Your task to perform on an android device: Do I have any events today? Image 0: 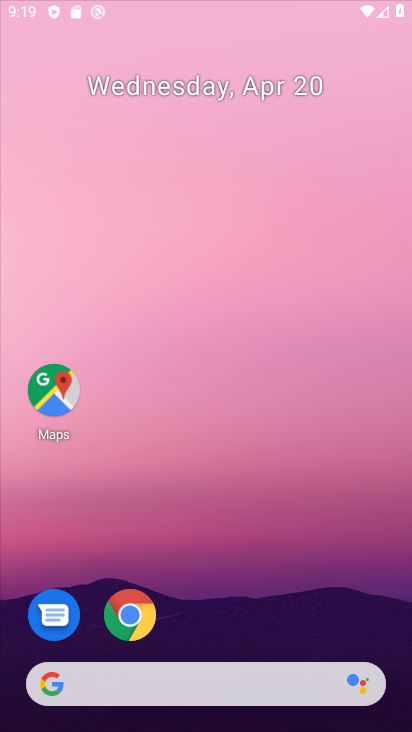
Step 0: click (123, 619)
Your task to perform on an android device: Do I have any events today? Image 1: 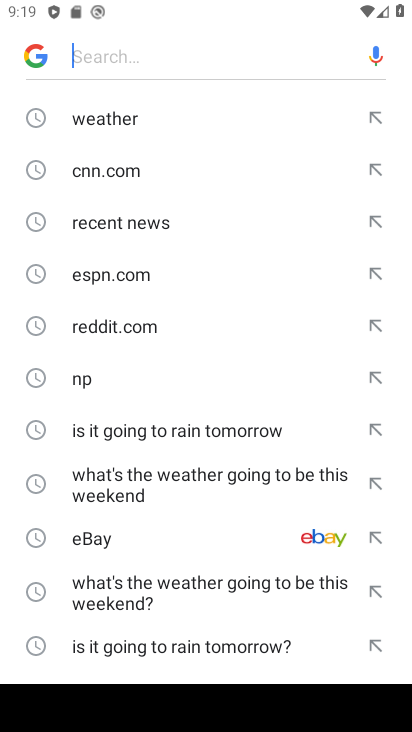
Step 1: press home button
Your task to perform on an android device: Do I have any events today? Image 2: 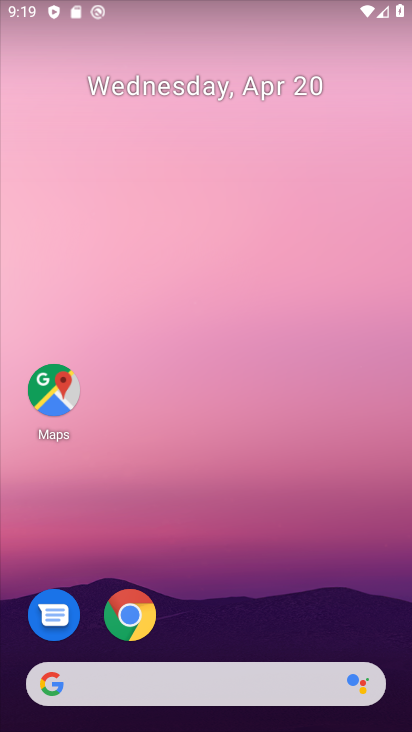
Step 2: drag from (235, 587) to (243, 49)
Your task to perform on an android device: Do I have any events today? Image 3: 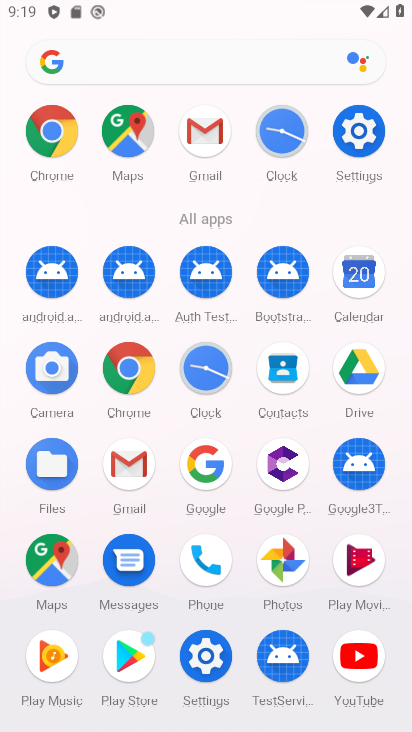
Step 3: click (355, 270)
Your task to perform on an android device: Do I have any events today? Image 4: 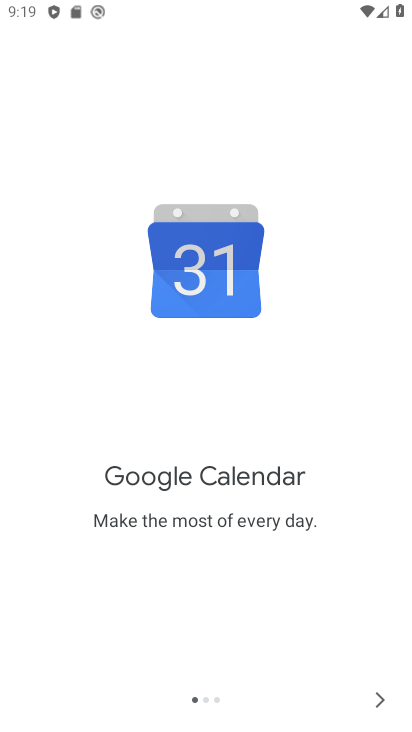
Step 4: click (374, 701)
Your task to perform on an android device: Do I have any events today? Image 5: 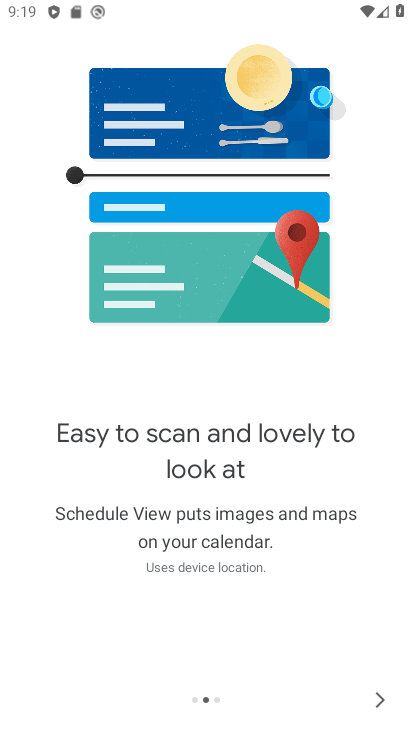
Step 5: click (374, 701)
Your task to perform on an android device: Do I have any events today? Image 6: 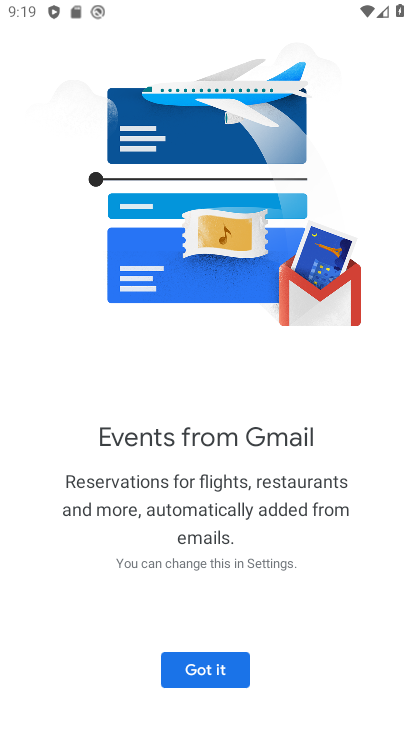
Step 6: click (208, 672)
Your task to perform on an android device: Do I have any events today? Image 7: 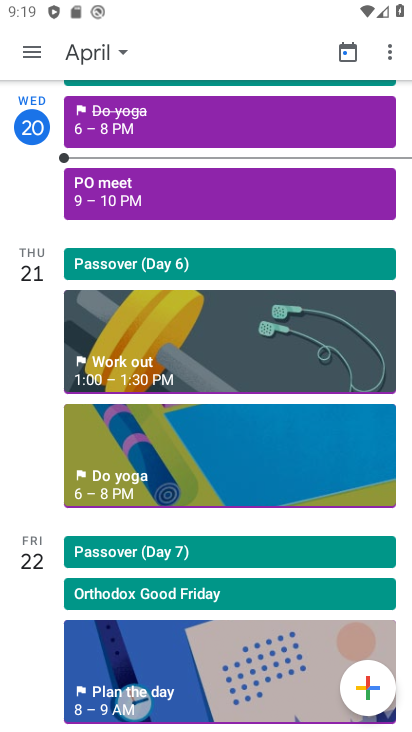
Step 7: click (29, 49)
Your task to perform on an android device: Do I have any events today? Image 8: 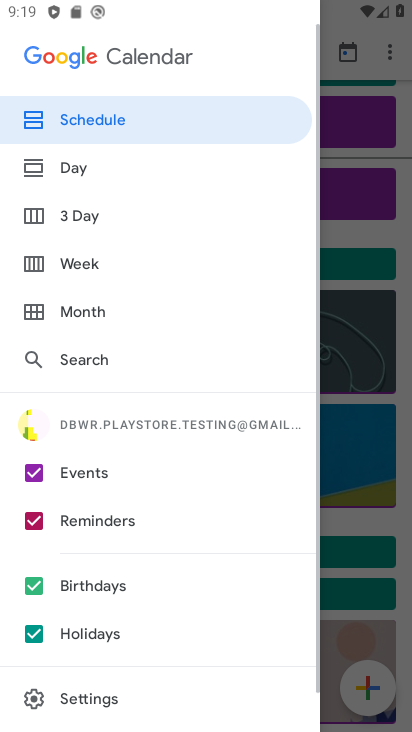
Step 8: click (70, 157)
Your task to perform on an android device: Do I have any events today? Image 9: 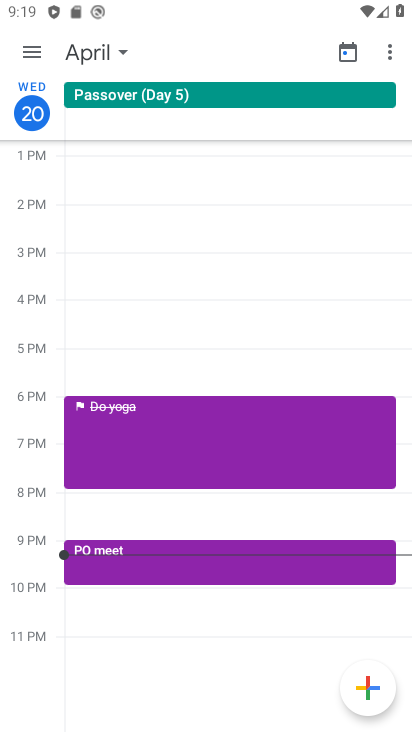
Step 9: click (123, 50)
Your task to perform on an android device: Do I have any events today? Image 10: 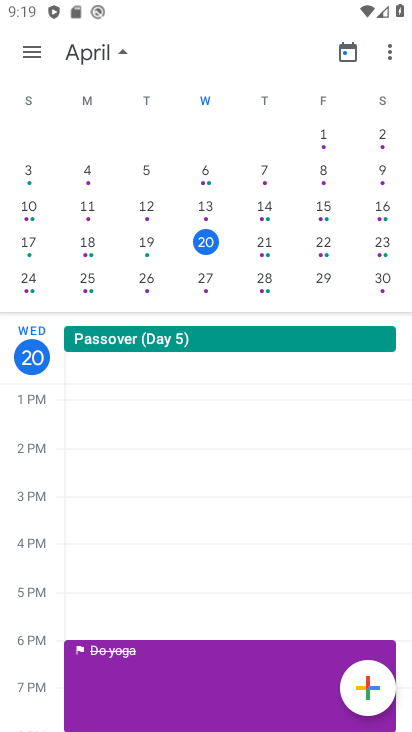
Step 10: click (208, 238)
Your task to perform on an android device: Do I have any events today? Image 11: 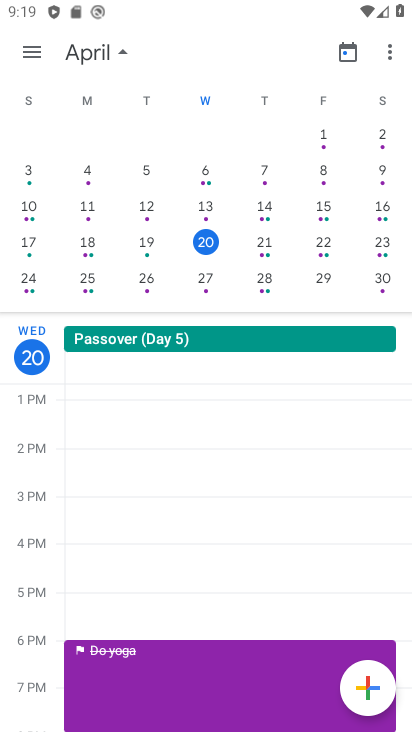
Step 11: task complete